Your task to perform on an android device: toggle sleep mode Image 0: 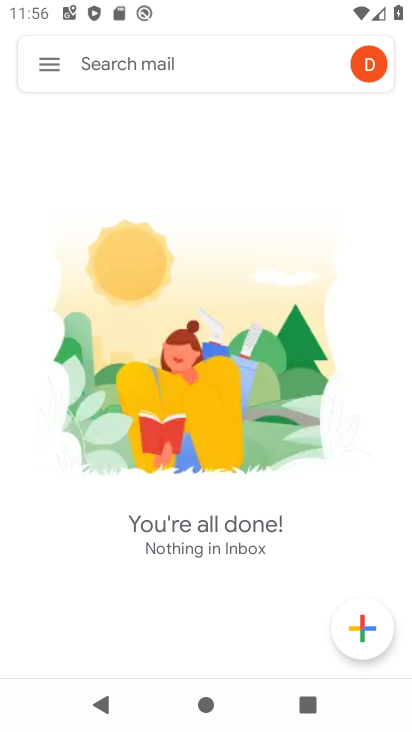
Step 0: press home button
Your task to perform on an android device: toggle sleep mode Image 1: 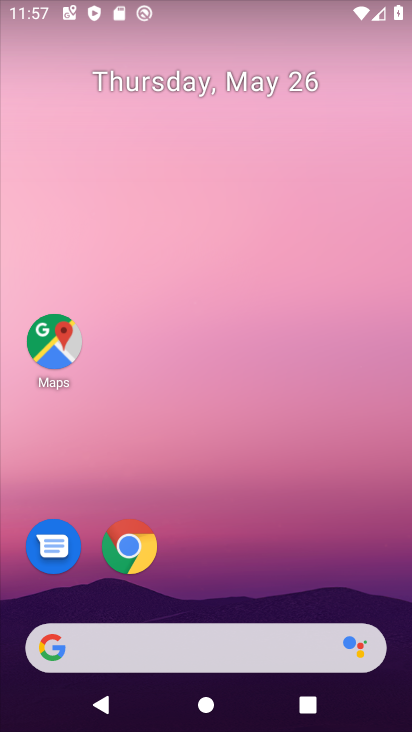
Step 1: drag from (238, 561) to (164, 123)
Your task to perform on an android device: toggle sleep mode Image 2: 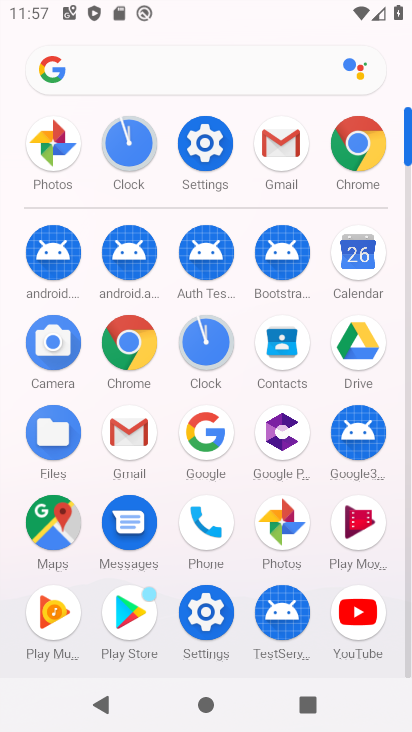
Step 2: click (214, 124)
Your task to perform on an android device: toggle sleep mode Image 3: 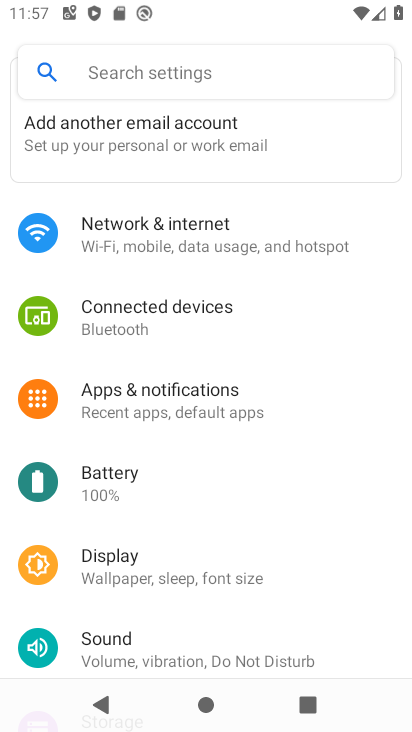
Step 3: click (113, 561)
Your task to perform on an android device: toggle sleep mode Image 4: 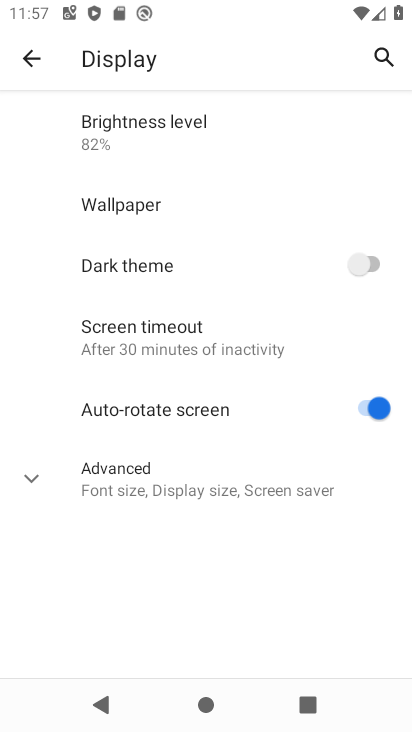
Step 4: task complete